Your task to perform on an android device: toggle javascript in the chrome app Image 0: 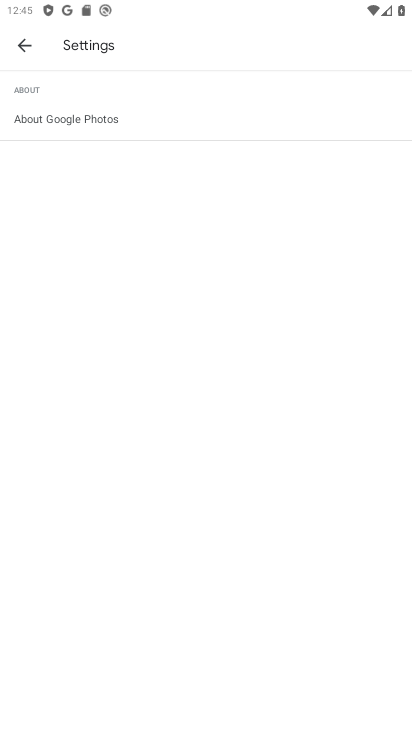
Step 0: press home button
Your task to perform on an android device: toggle javascript in the chrome app Image 1: 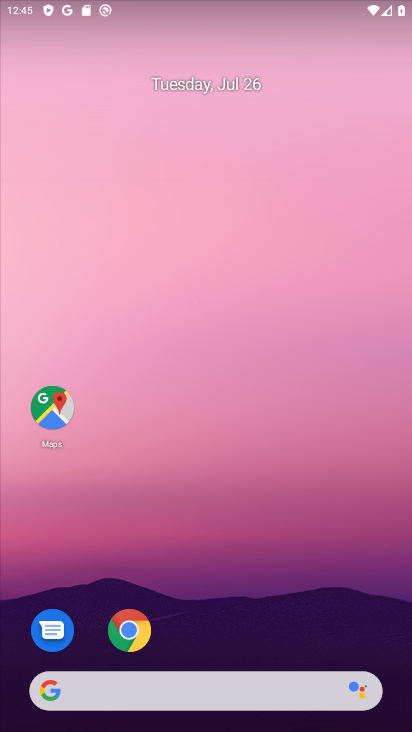
Step 1: click (135, 620)
Your task to perform on an android device: toggle javascript in the chrome app Image 2: 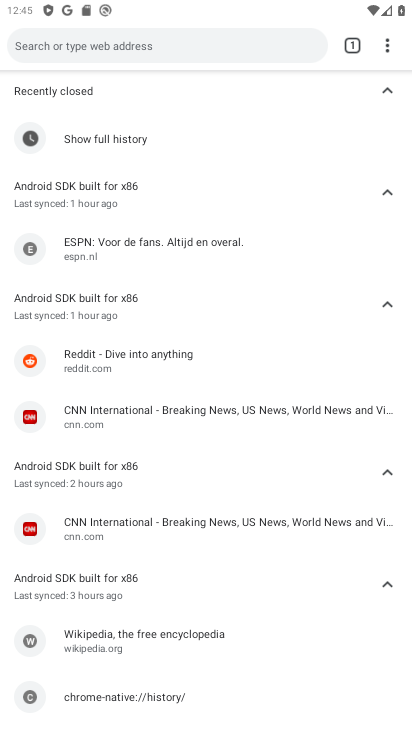
Step 2: click (387, 46)
Your task to perform on an android device: toggle javascript in the chrome app Image 3: 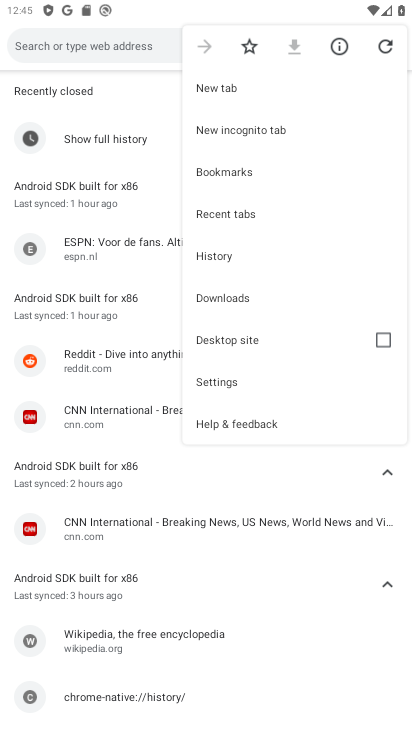
Step 3: click (220, 384)
Your task to perform on an android device: toggle javascript in the chrome app Image 4: 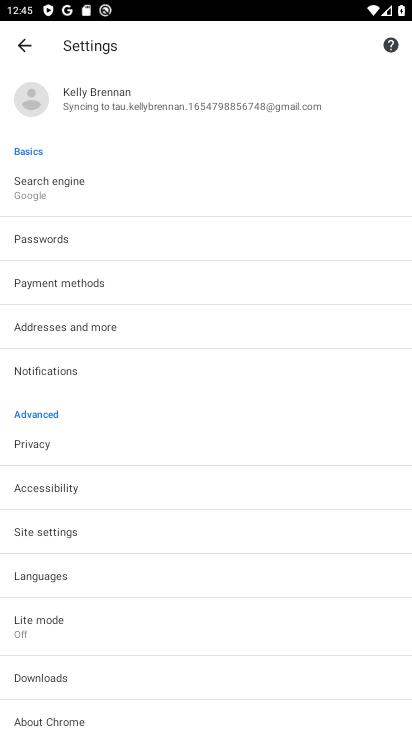
Step 4: click (44, 530)
Your task to perform on an android device: toggle javascript in the chrome app Image 5: 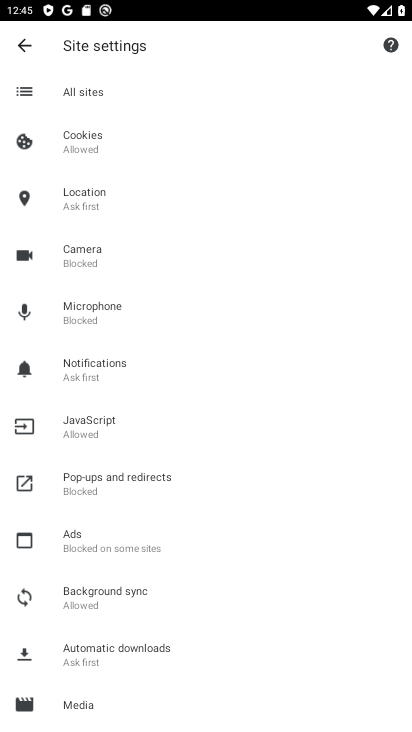
Step 5: click (93, 423)
Your task to perform on an android device: toggle javascript in the chrome app Image 6: 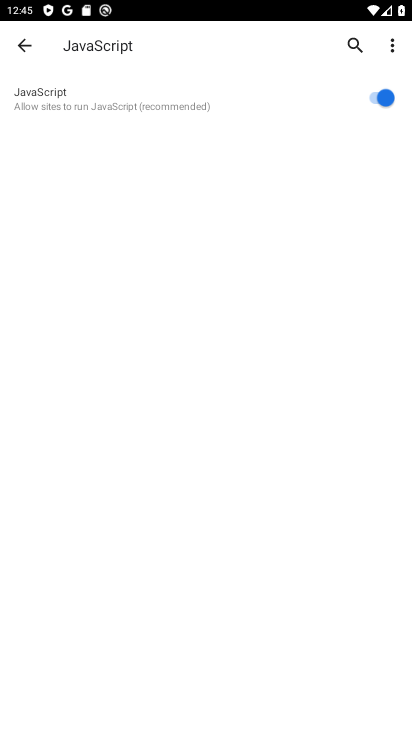
Step 6: click (377, 101)
Your task to perform on an android device: toggle javascript in the chrome app Image 7: 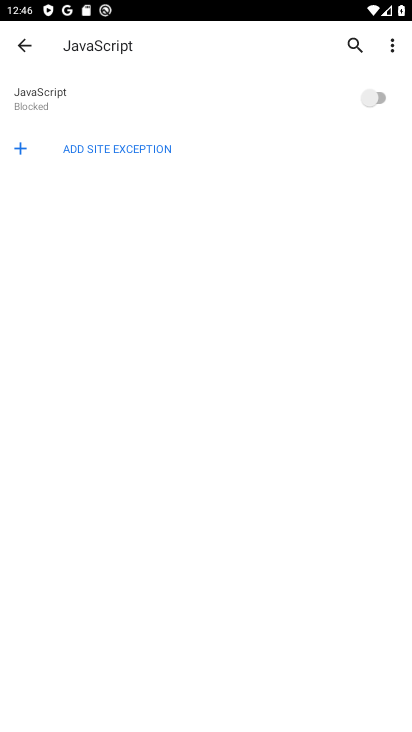
Step 7: task complete